Your task to perform on an android device: toggle sleep mode Image 0: 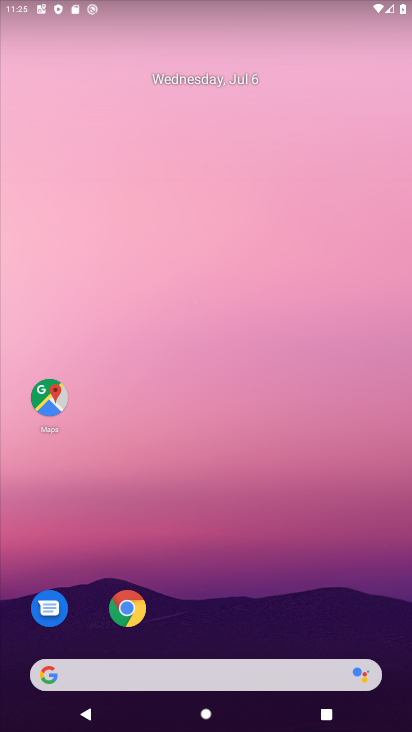
Step 0: press home button
Your task to perform on an android device: toggle sleep mode Image 1: 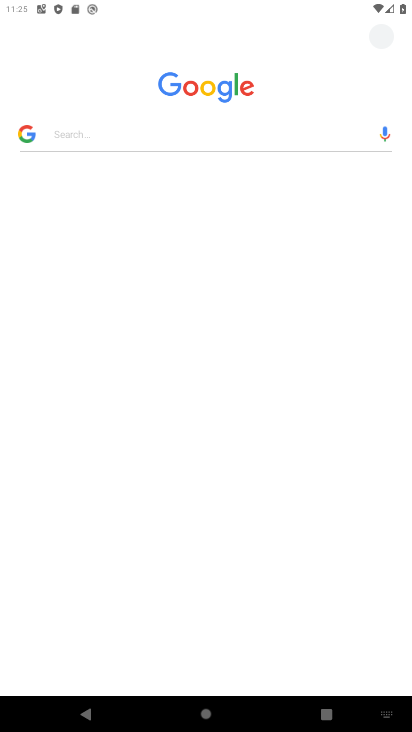
Step 1: click (324, 234)
Your task to perform on an android device: toggle sleep mode Image 2: 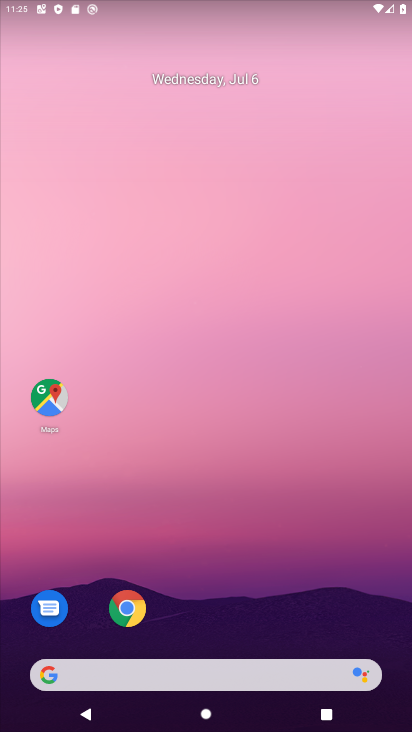
Step 2: drag from (253, 8) to (290, 483)
Your task to perform on an android device: toggle sleep mode Image 3: 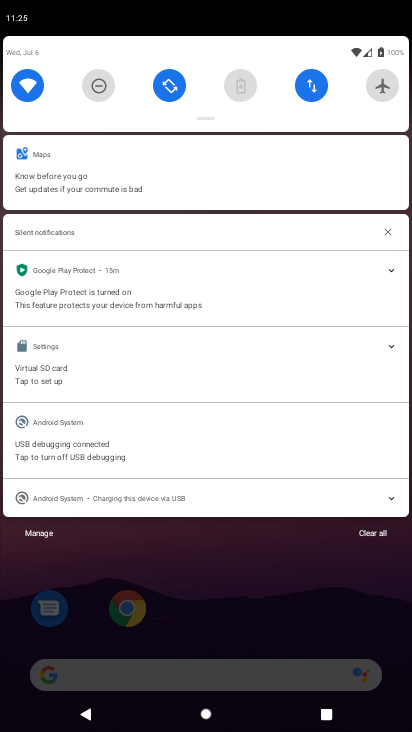
Step 3: drag from (248, 595) to (187, 126)
Your task to perform on an android device: toggle sleep mode Image 4: 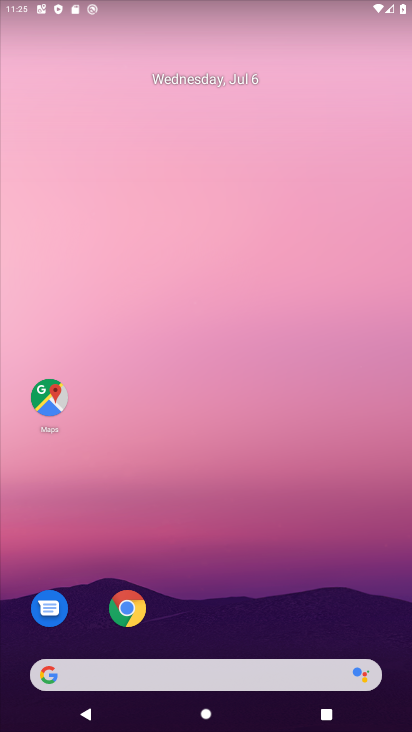
Step 4: drag from (369, 607) to (271, 98)
Your task to perform on an android device: toggle sleep mode Image 5: 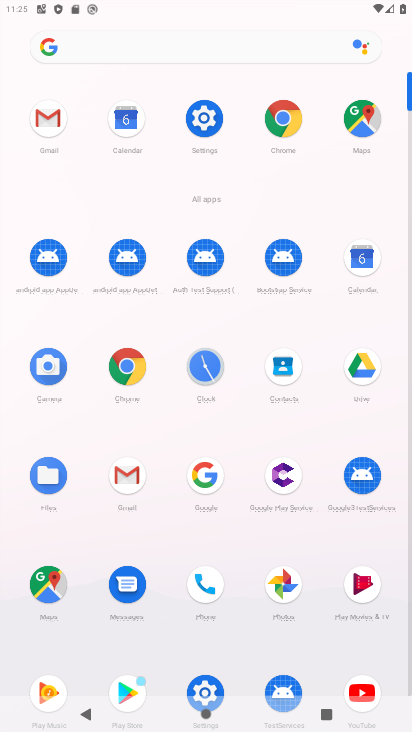
Step 5: click (210, 143)
Your task to perform on an android device: toggle sleep mode Image 6: 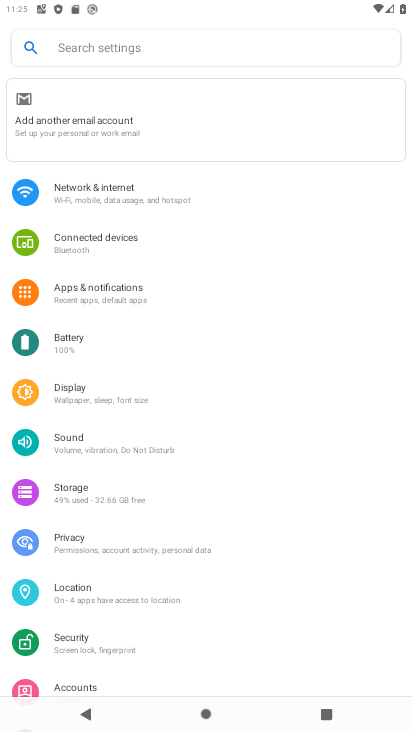
Step 6: drag from (114, 600) to (220, 402)
Your task to perform on an android device: toggle sleep mode Image 7: 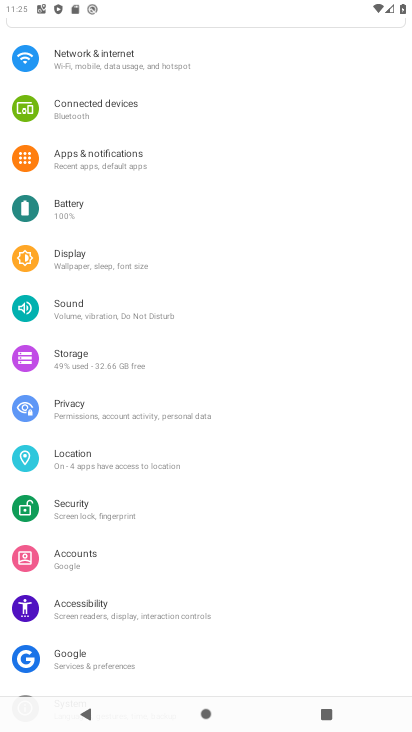
Step 7: click (65, 256)
Your task to perform on an android device: toggle sleep mode Image 8: 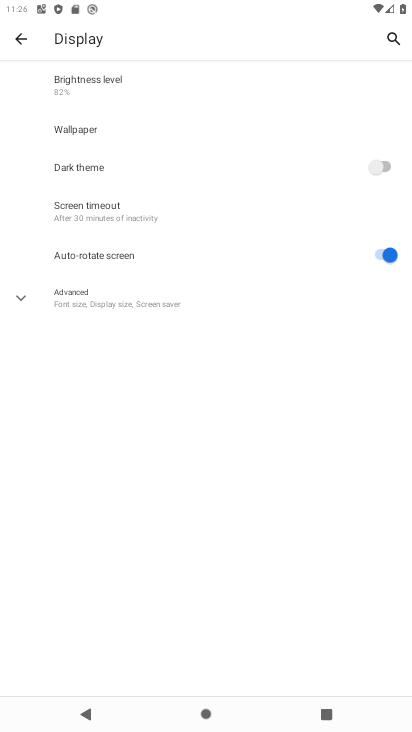
Step 8: task complete